Your task to perform on an android device: refresh tabs in the chrome app Image 0: 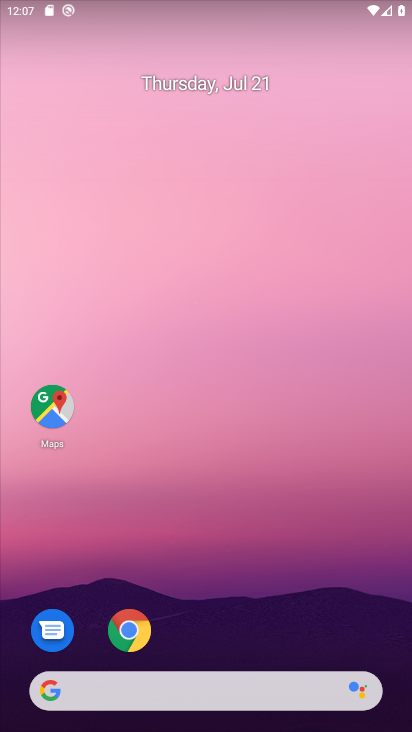
Step 0: drag from (233, 516) to (409, 526)
Your task to perform on an android device: refresh tabs in the chrome app Image 1: 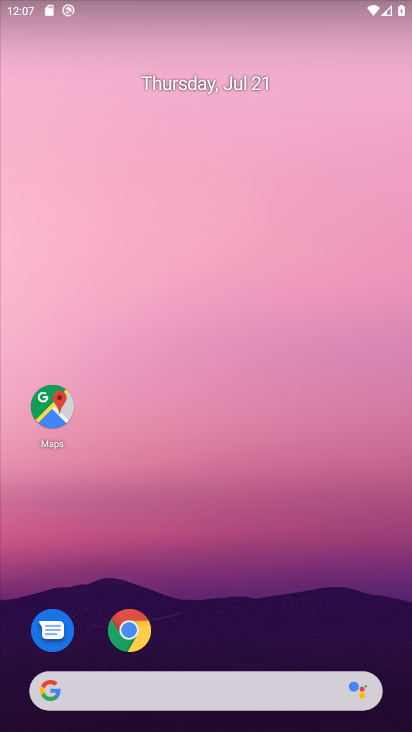
Step 1: drag from (188, 523) to (259, 267)
Your task to perform on an android device: refresh tabs in the chrome app Image 2: 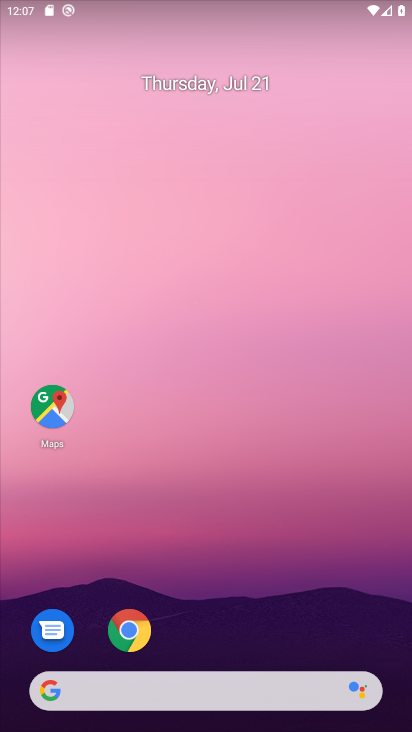
Step 2: drag from (207, 568) to (281, 60)
Your task to perform on an android device: refresh tabs in the chrome app Image 3: 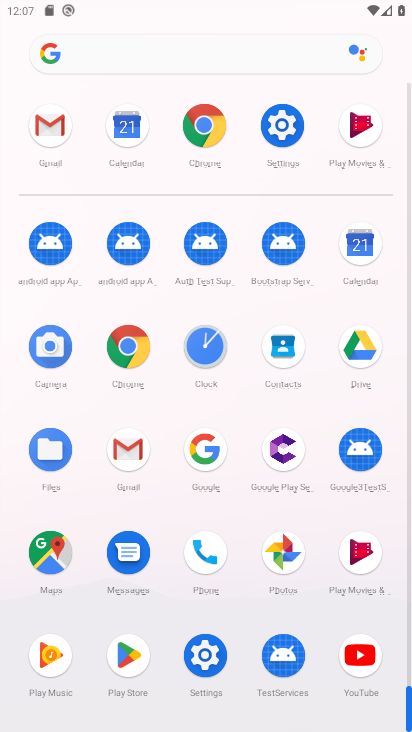
Step 3: drag from (168, 587) to (259, 398)
Your task to perform on an android device: refresh tabs in the chrome app Image 4: 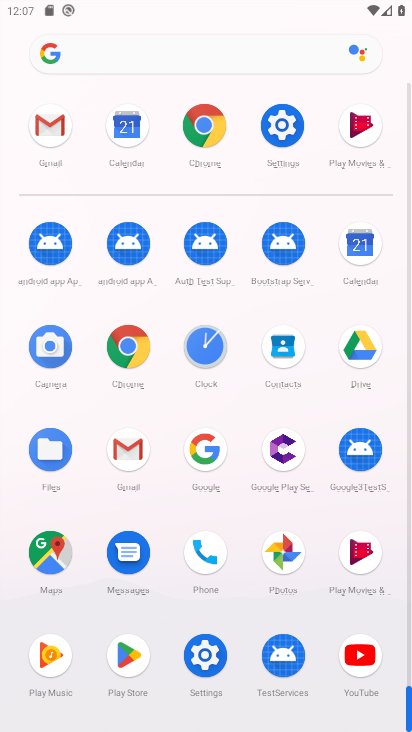
Step 4: click (126, 327)
Your task to perform on an android device: refresh tabs in the chrome app Image 5: 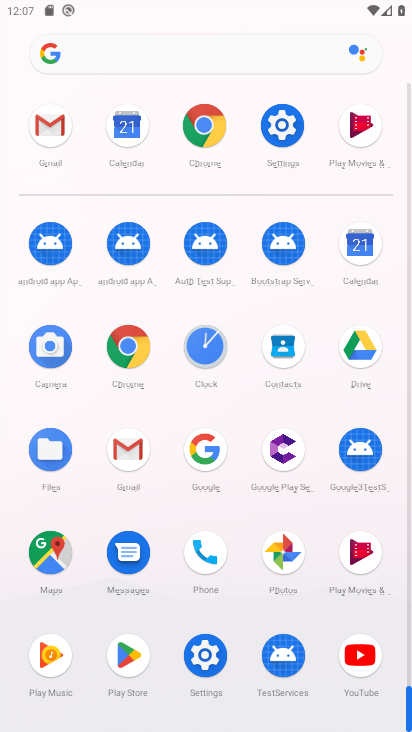
Step 5: click (123, 336)
Your task to perform on an android device: refresh tabs in the chrome app Image 6: 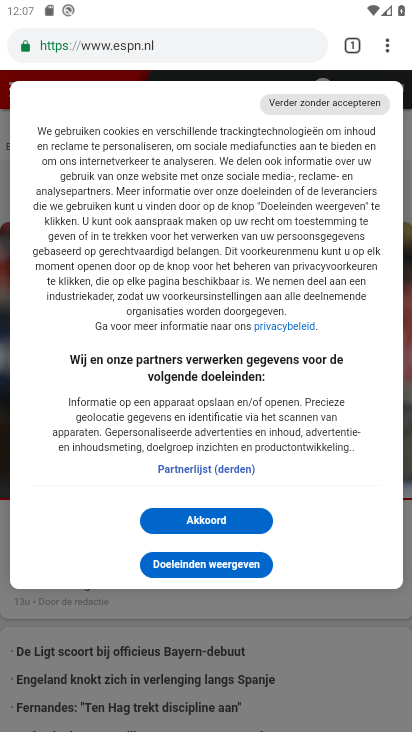
Step 6: drag from (221, 323) to (246, 114)
Your task to perform on an android device: refresh tabs in the chrome app Image 7: 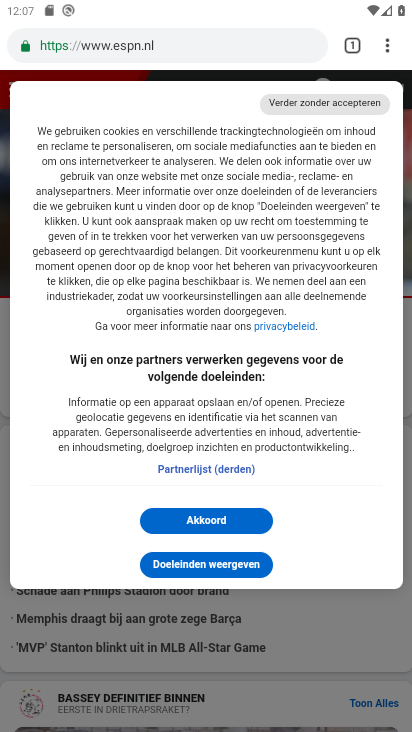
Step 7: click (385, 46)
Your task to perform on an android device: refresh tabs in the chrome app Image 8: 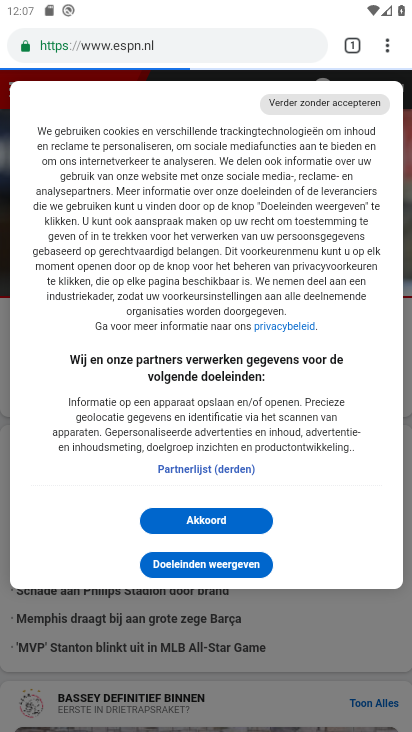
Step 8: task complete